Your task to perform on an android device: turn off notifications in google photos Image 0: 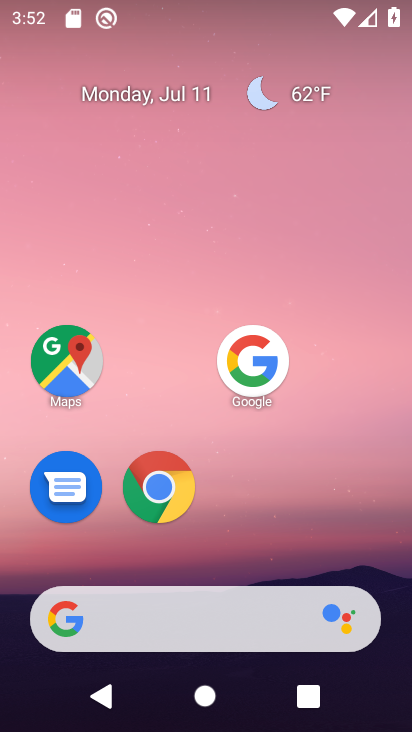
Step 0: drag from (207, 465) to (321, 19)
Your task to perform on an android device: turn off notifications in google photos Image 1: 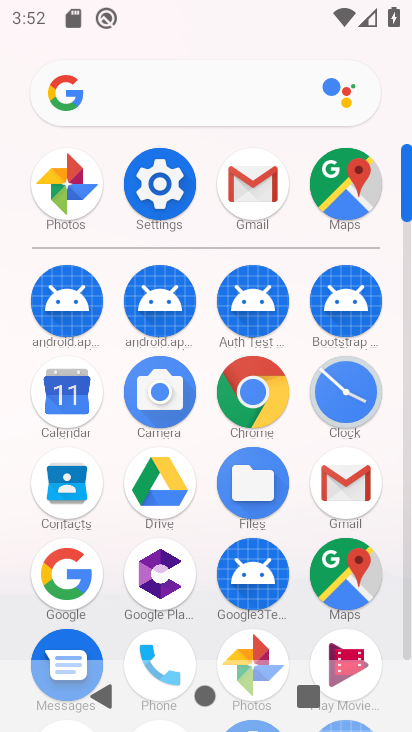
Step 1: click (74, 179)
Your task to perform on an android device: turn off notifications in google photos Image 2: 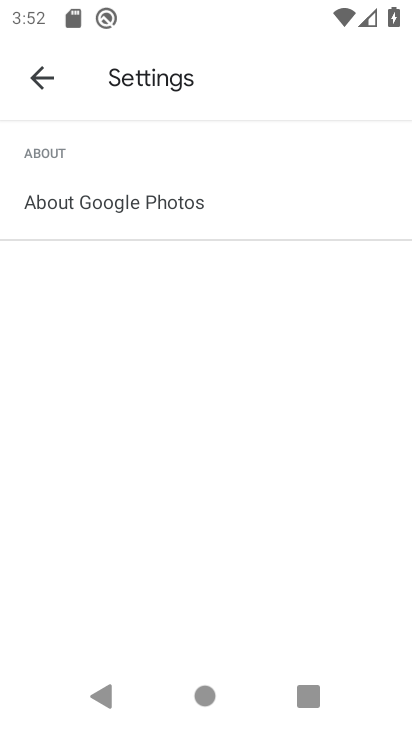
Step 2: click (47, 71)
Your task to perform on an android device: turn off notifications in google photos Image 3: 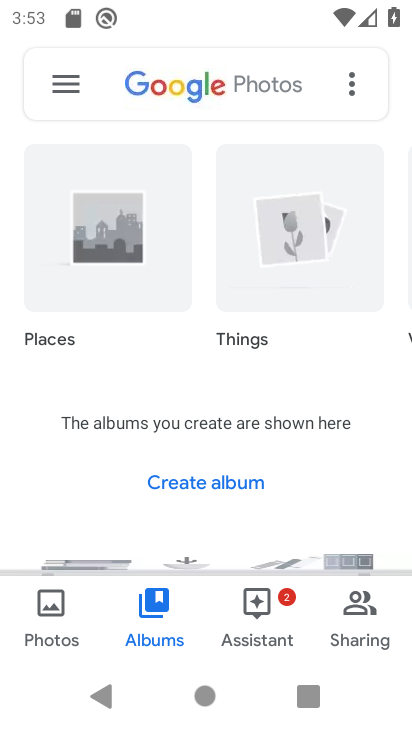
Step 3: click (65, 81)
Your task to perform on an android device: turn off notifications in google photos Image 4: 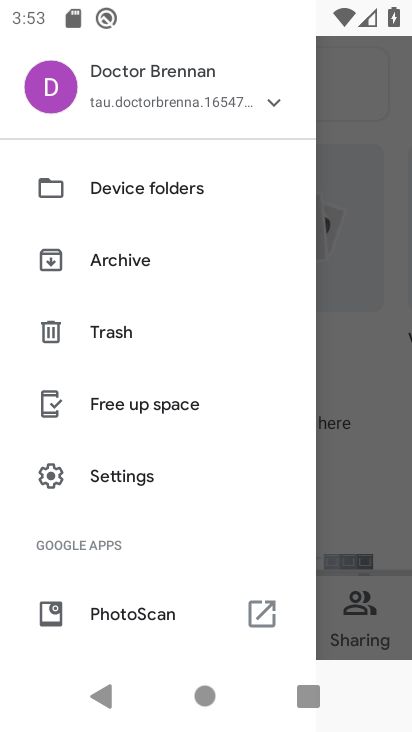
Step 4: click (156, 475)
Your task to perform on an android device: turn off notifications in google photos Image 5: 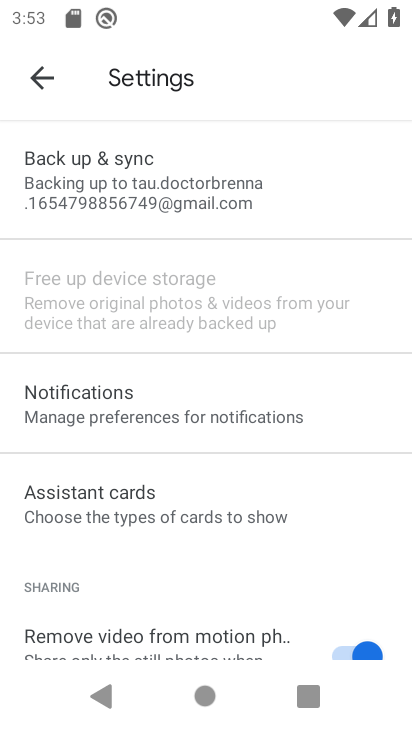
Step 5: click (199, 415)
Your task to perform on an android device: turn off notifications in google photos Image 6: 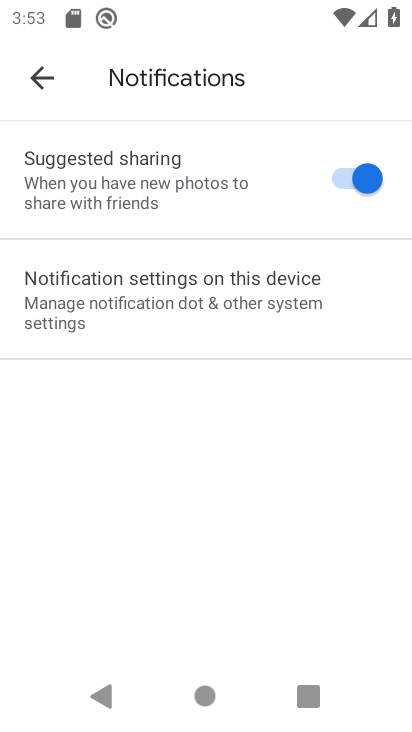
Step 6: click (214, 332)
Your task to perform on an android device: turn off notifications in google photos Image 7: 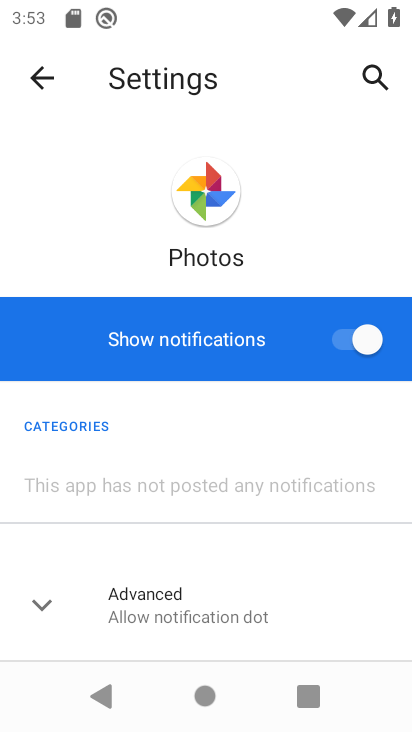
Step 7: click (347, 344)
Your task to perform on an android device: turn off notifications in google photos Image 8: 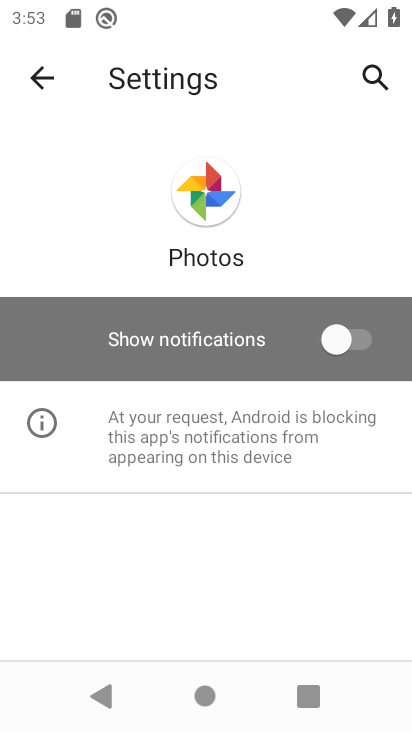
Step 8: task complete